Your task to perform on an android device: empty trash in google photos Image 0: 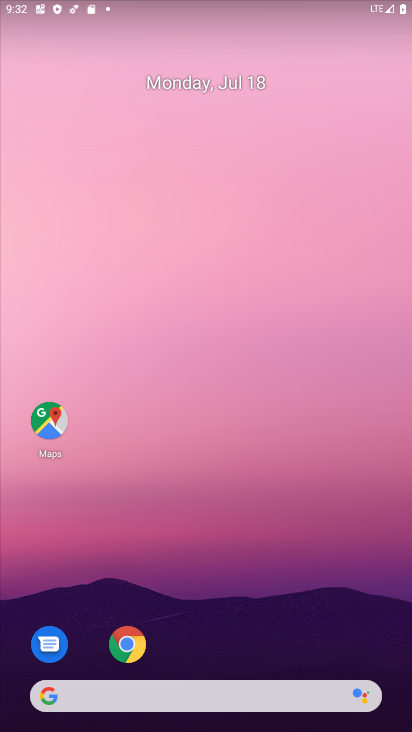
Step 0: drag from (214, 674) to (195, 23)
Your task to perform on an android device: empty trash in google photos Image 1: 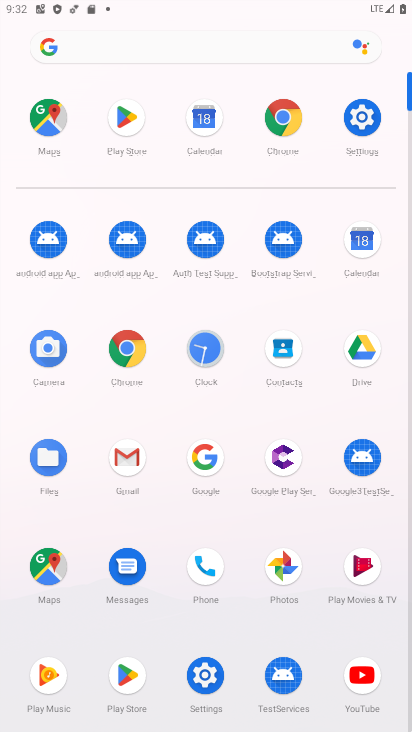
Step 1: click (284, 569)
Your task to perform on an android device: empty trash in google photos Image 2: 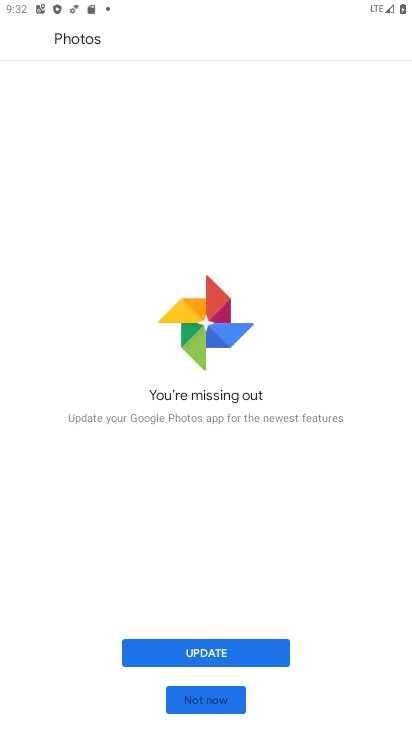
Step 2: click (178, 687)
Your task to perform on an android device: empty trash in google photos Image 3: 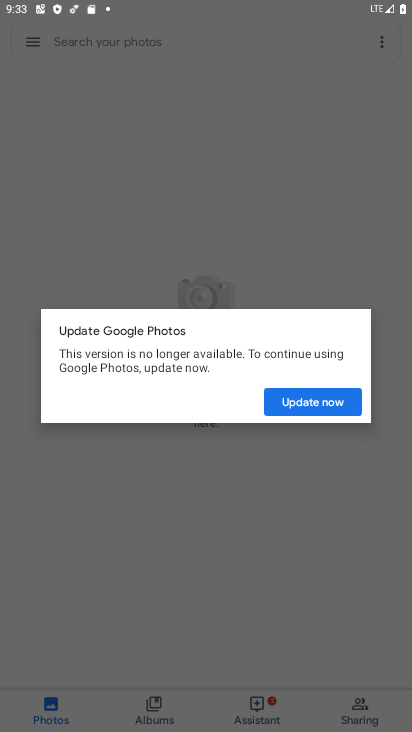
Step 3: click (281, 390)
Your task to perform on an android device: empty trash in google photos Image 4: 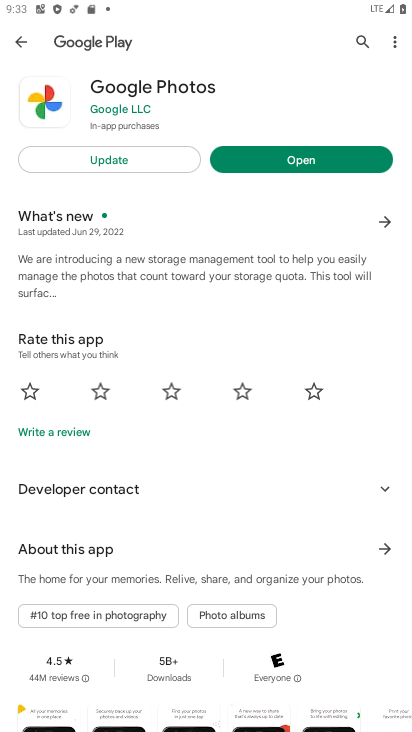
Step 4: click (138, 166)
Your task to perform on an android device: empty trash in google photos Image 5: 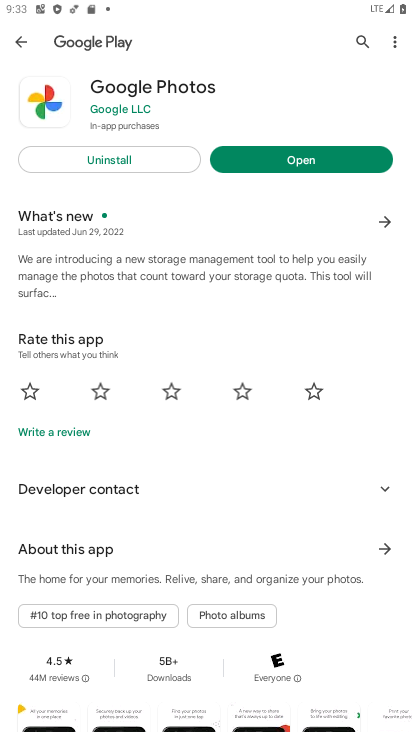
Step 5: click (242, 156)
Your task to perform on an android device: empty trash in google photos Image 6: 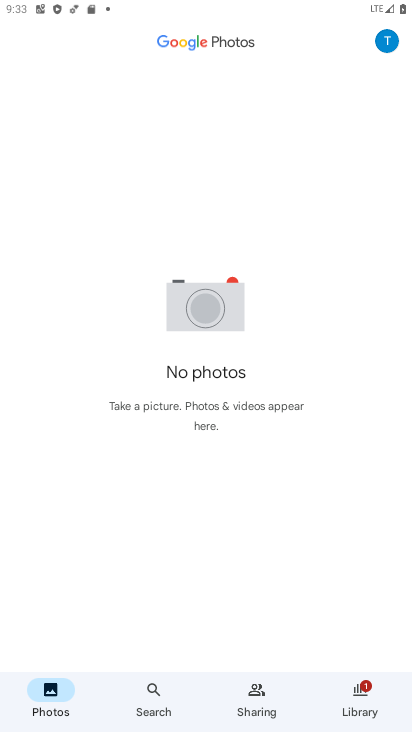
Step 6: click (383, 39)
Your task to perform on an android device: empty trash in google photos Image 7: 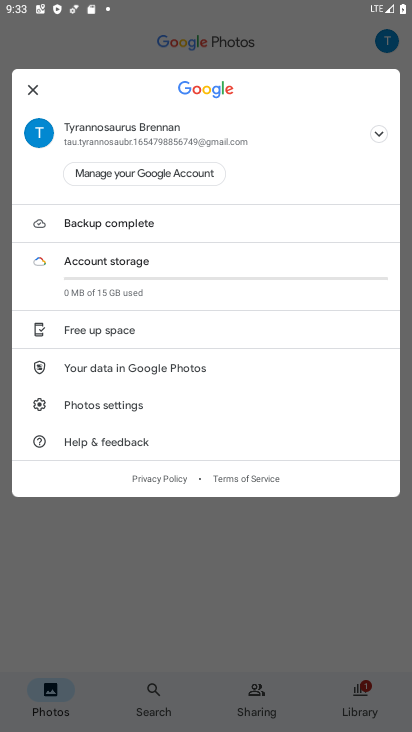
Step 7: click (319, 692)
Your task to perform on an android device: empty trash in google photos Image 8: 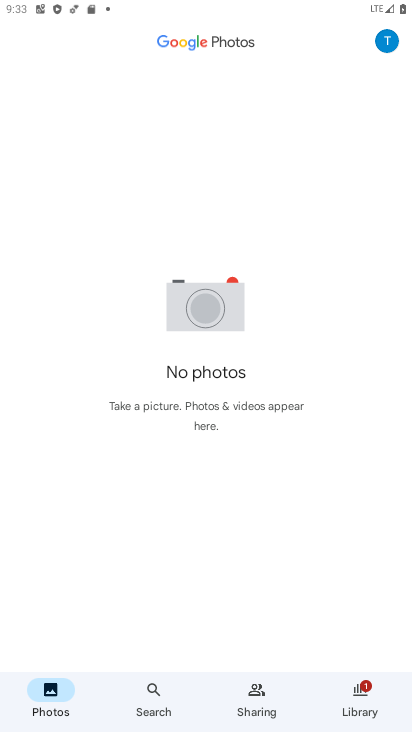
Step 8: click (361, 691)
Your task to perform on an android device: empty trash in google photos Image 9: 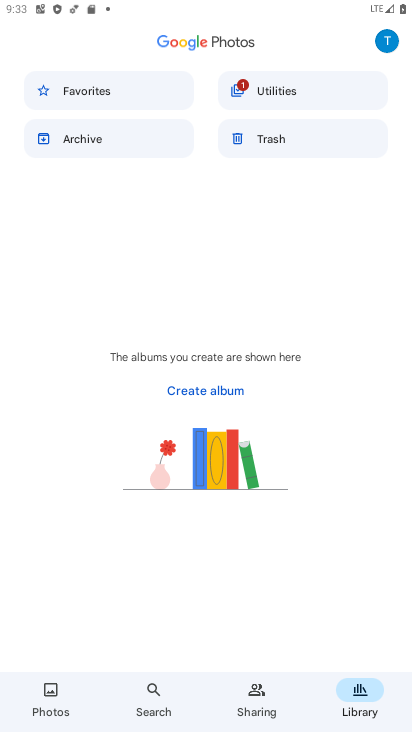
Step 9: click (263, 144)
Your task to perform on an android device: empty trash in google photos Image 10: 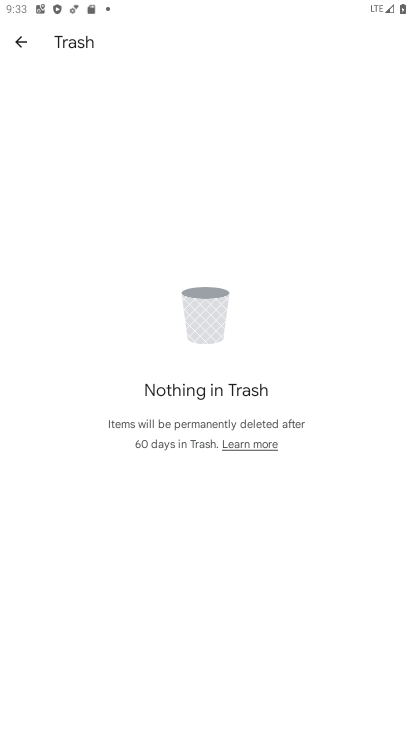
Step 10: task complete